Your task to perform on an android device: turn off priority inbox in the gmail app Image 0: 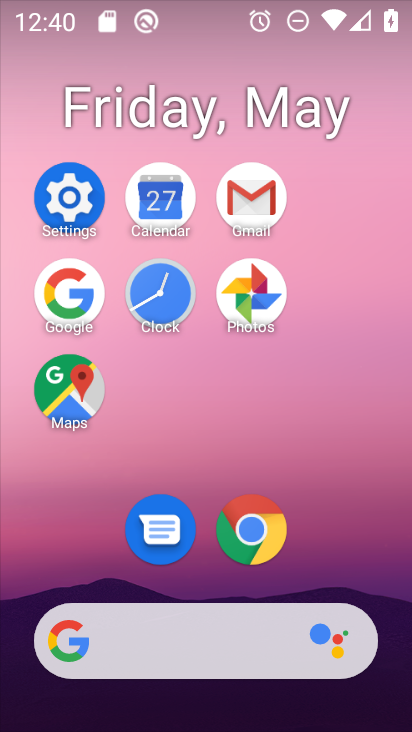
Step 0: click (258, 197)
Your task to perform on an android device: turn off priority inbox in the gmail app Image 1: 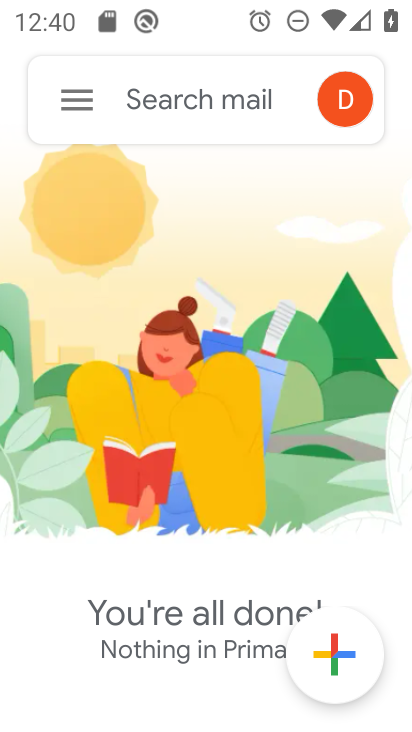
Step 1: click (83, 103)
Your task to perform on an android device: turn off priority inbox in the gmail app Image 2: 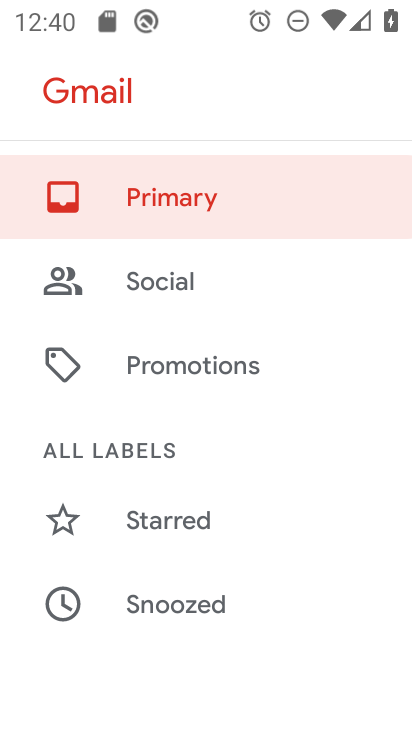
Step 2: drag from (281, 552) to (258, 156)
Your task to perform on an android device: turn off priority inbox in the gmail app Image 3: 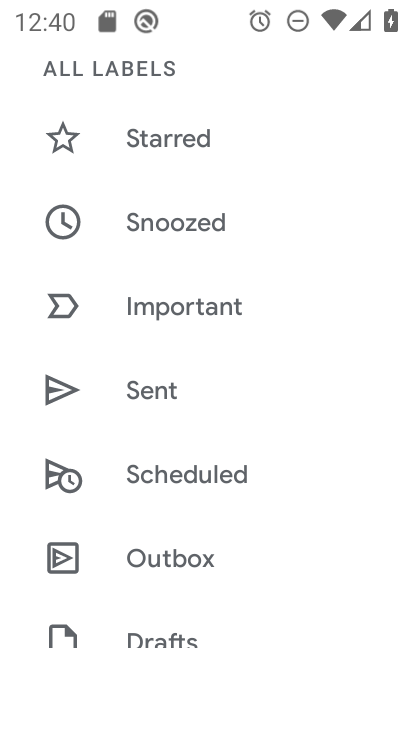
Step 3: drag from (260, 443) to (231, 184)
Your task to perform on an android device: turn off priority inbox in the gmail app Image 4: 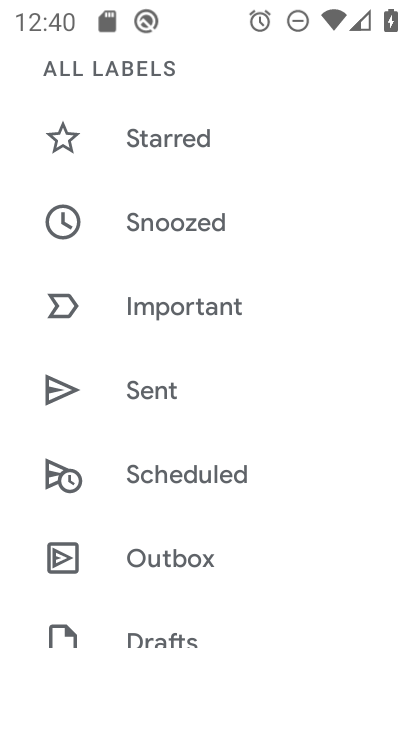
Step 4: drag from (256, 622) to (271, 155)
Your task to perform on an android device: turn off priority inbox in the gmail app Image 5: 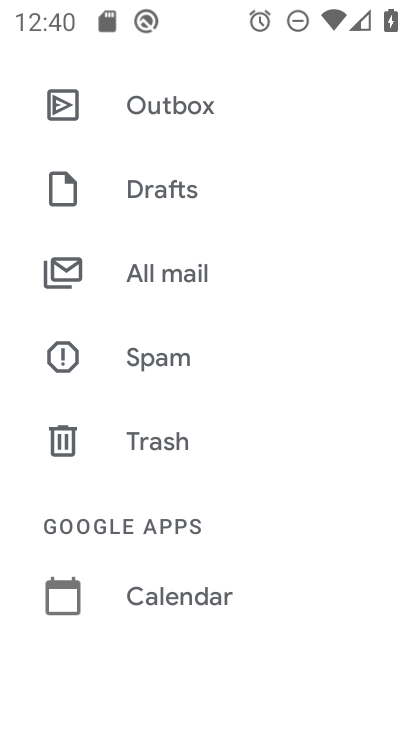
Step 5: drag from (234, 548) to (222, 153)
Your task to perform on an android device: turn off priority inbox in the gmail app Image 6: 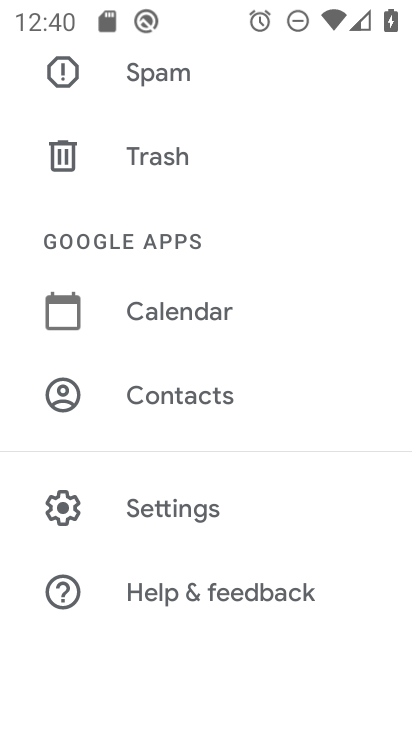
Step 6: click (254, 486)
Your task to perform on an android device: turn off priority inbox in the gmail app Image 7: 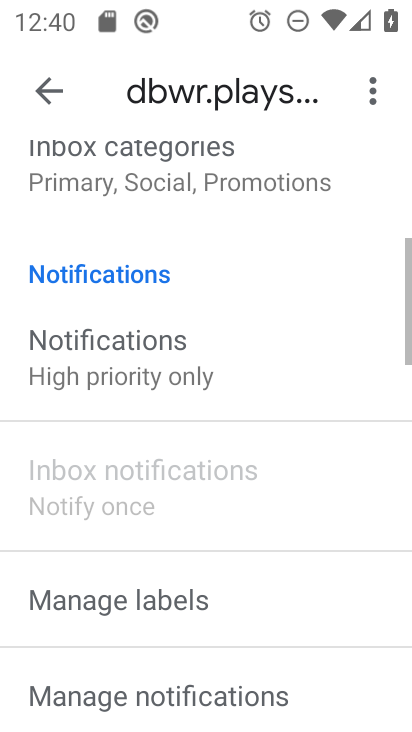
Step 7: drag from (241, 438) to (207, 186)
Your task to perform on an android device: turn off priority inbox in the gmail app Image 8: 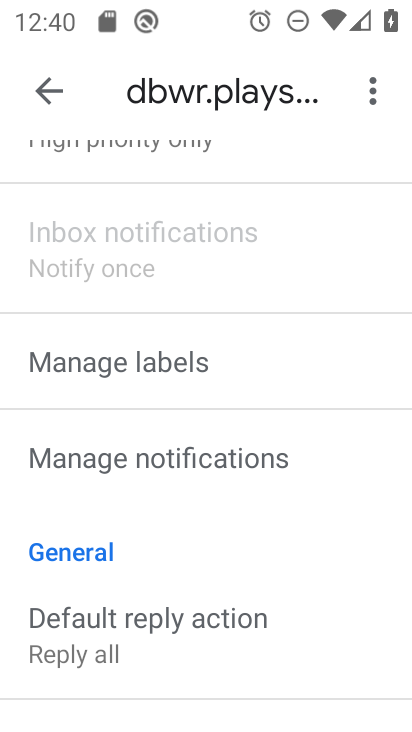
Step 8: drag from (245, 193) to (256, 635)
Your task to perform on an android device: turn off priority inbox in the gmail app Image 9: 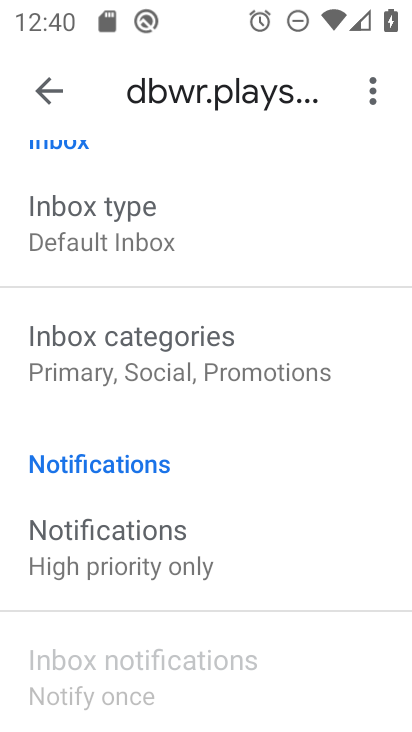
Step 9: click (259, 244)
Your task to perform on an android device: turn off priority inbox in the gmail app Image 10: 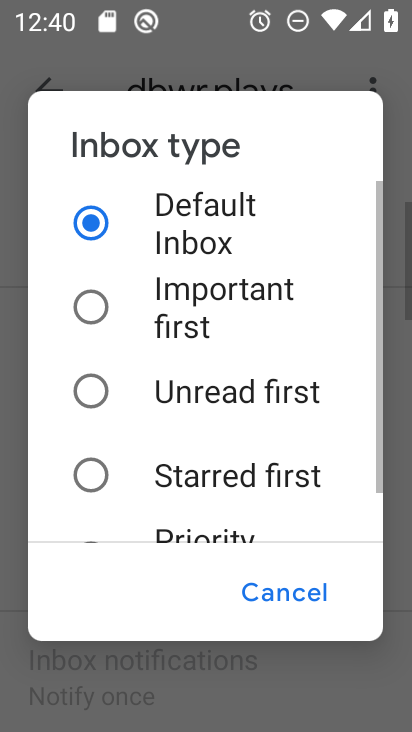
Step 10: task complete